Your task to perform on an android device: turn pop-ups off in chrome Image 0: 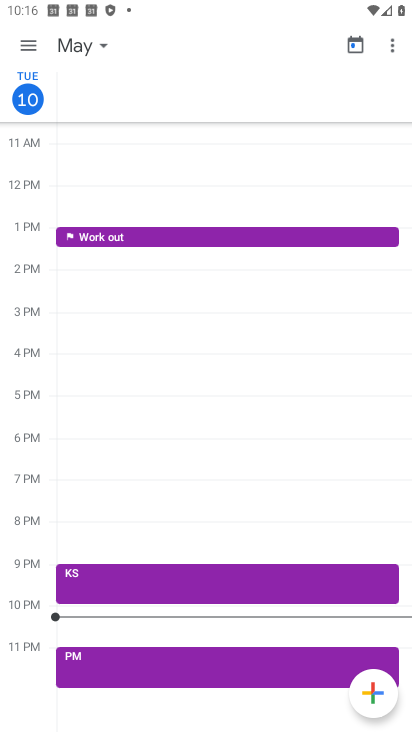
Step 0: press home button
Your task to perform on an android device: turn pop-ups off in chrome Image 1: 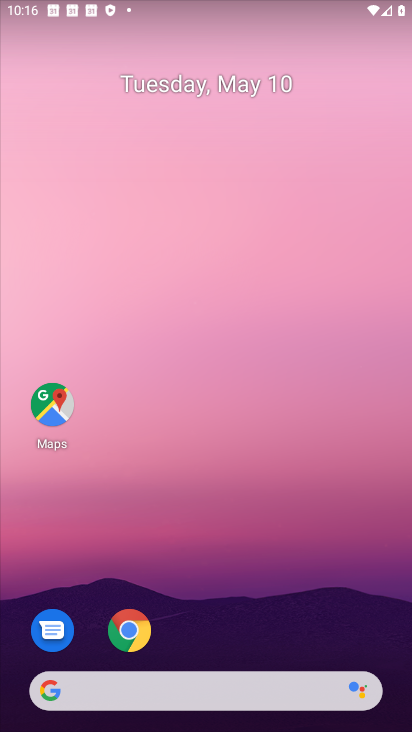
Step 1: click (110, 633)
Your task to perform on an android device: turn pop-ups off in chrome Image 2: 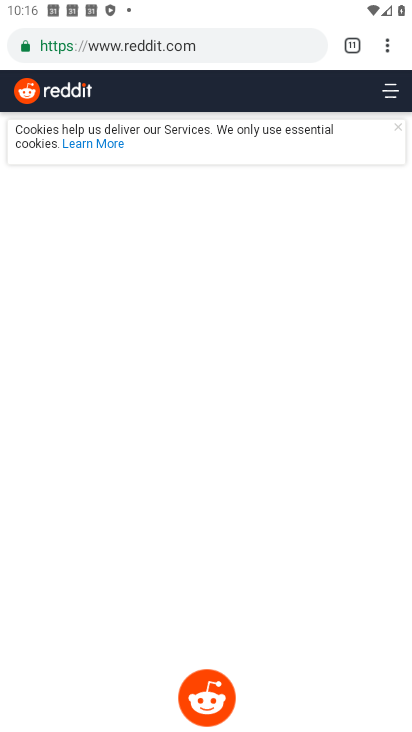
Step 2: click (385, 41)
Your task to perform on an android device: turn pop-ups off in chrome Image 3: 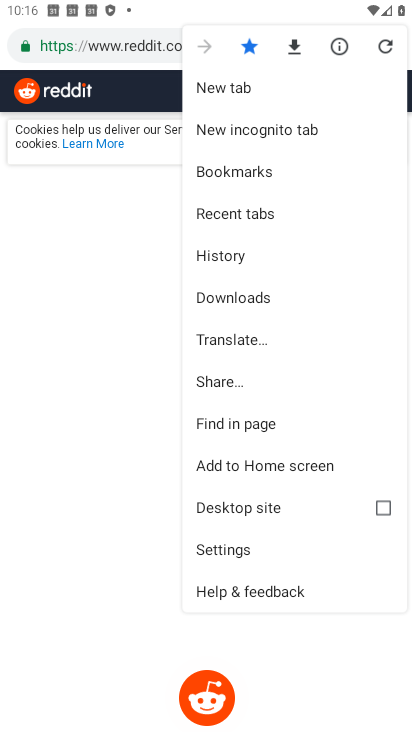
Step 3: click (263, 551)
Your task to perform on an android device: turn pop-ups off in chrome Image 4: 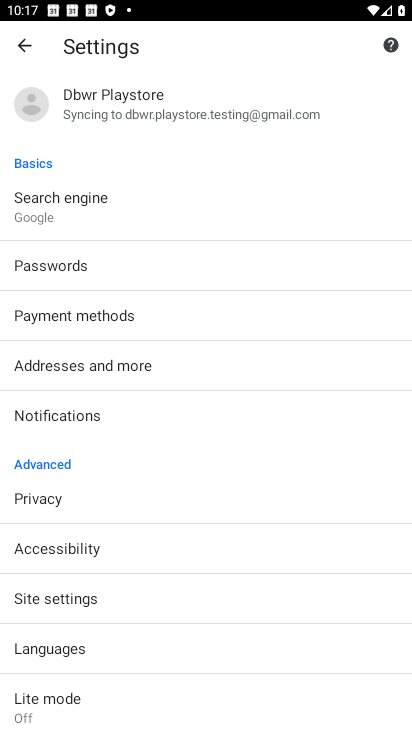
Step 4: click (56, 596)
Your task to perform on an android device: turn pop-ups off in chrome Image 5: 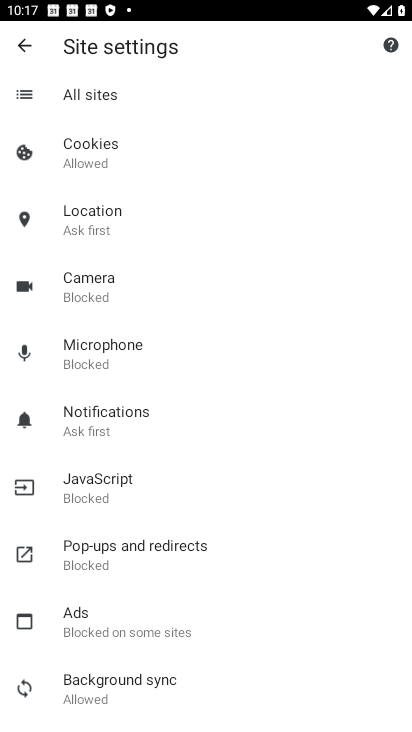
Step 5: click (184, 545)
Your task to perform on an android device: turn pop-ups off in chrome Image 6: 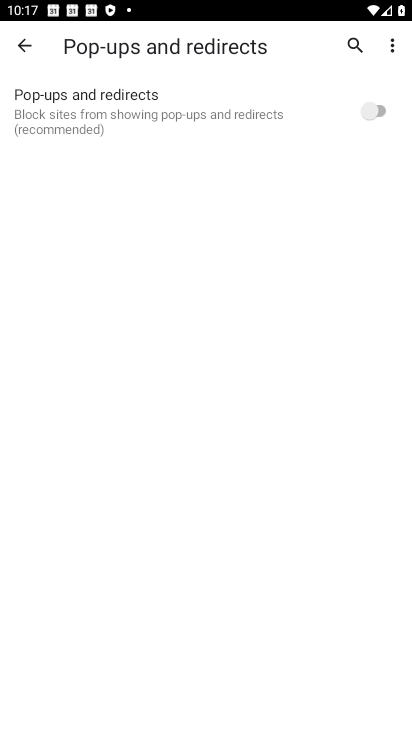
Step 6: task complete